Your task to perform on an android device: Go to CNN.com Image 0: 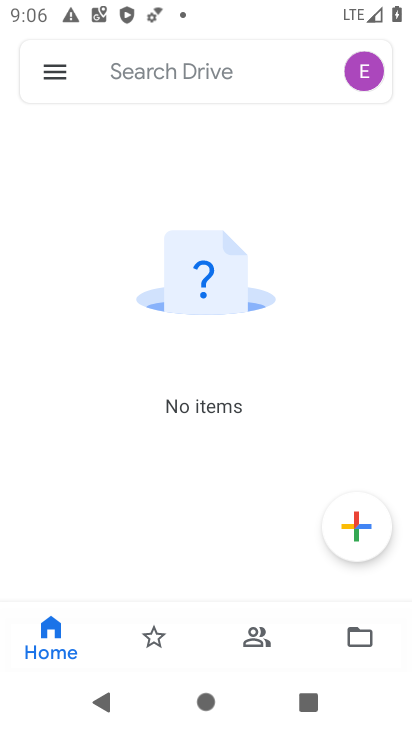
Step 0: press home button
Your task to perform on an android device: Go to CNN.com Image 1: 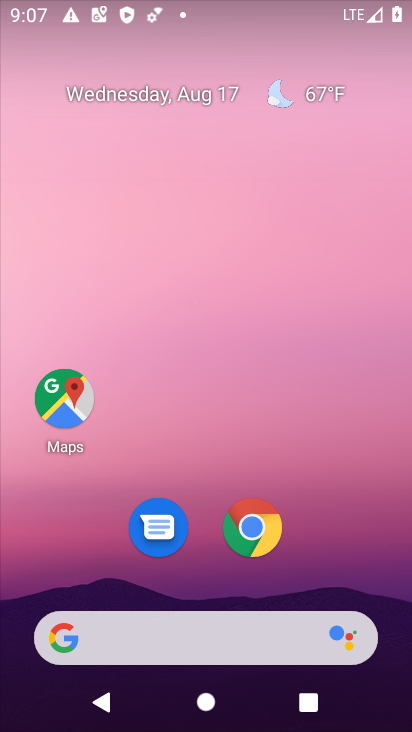
Step 1: click (220, 634)
Your task to perform on an android device: Go to CNN.com Image 2: 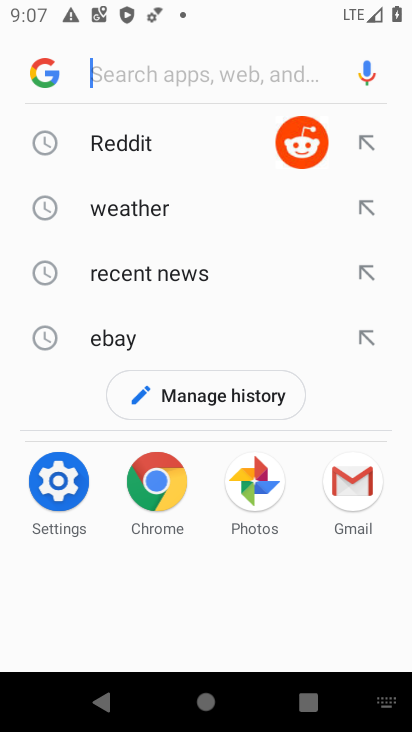
Step 2: type "cnn"
Your task to perform on an android device: Go to CNN.com Image 3: 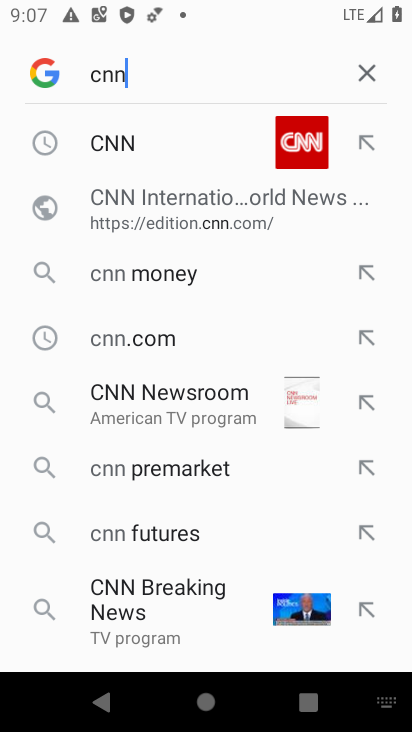
Step 3: click (164, 159)
Your task to perform on an android device: Go to CNN.com Image 4: 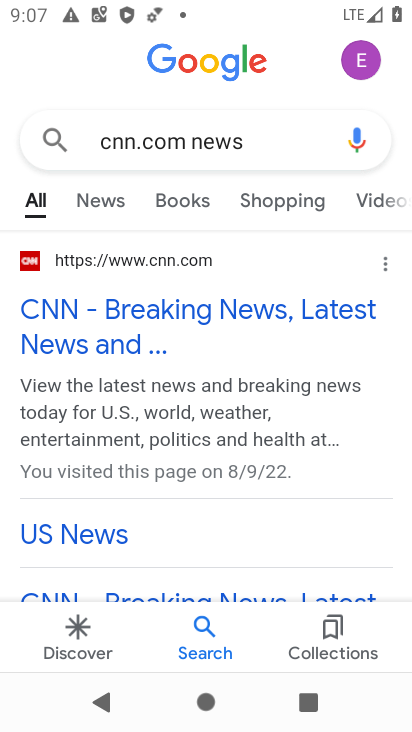
Step 4: click (115, 304)
Your task to perform on an android device: Go to CNN.com Image 5: 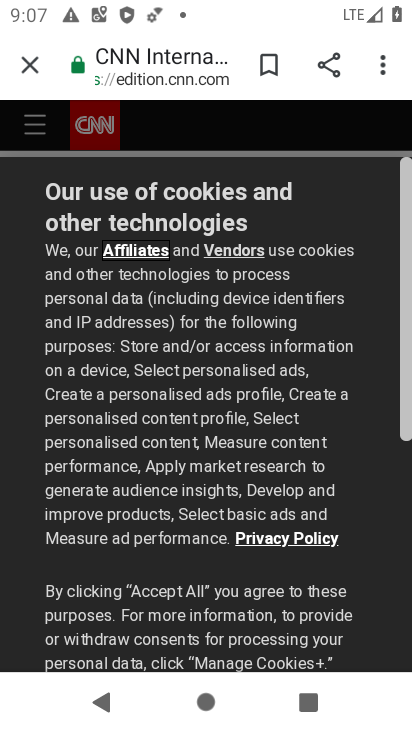
Step 5: task complete